Your task to perform on an android device: turn on improve location accuracy Image 0: 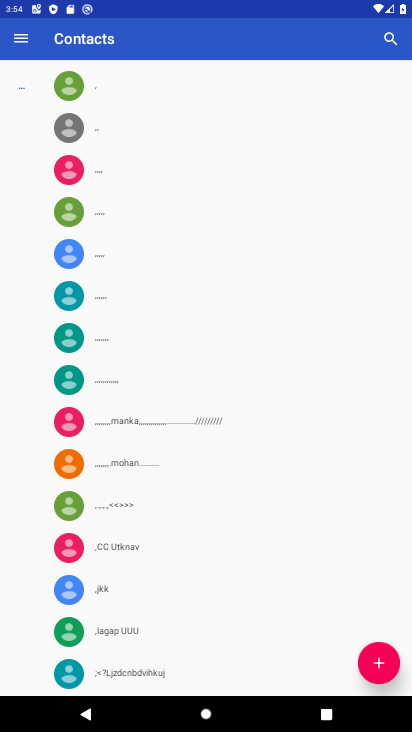
Step 0: press home button
Your task to perform on an android device: turn on improve location accuracy Image 1: 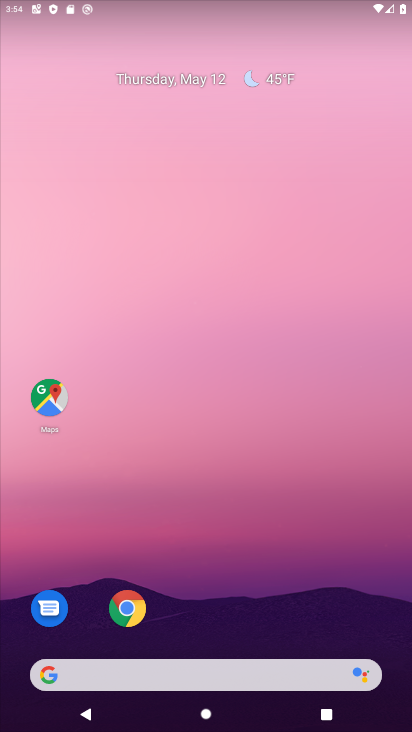
Step 1: drag from (239, 625) to (348, 20)
Your task to perform on an android device: turn on improve location accuracy Image 2: 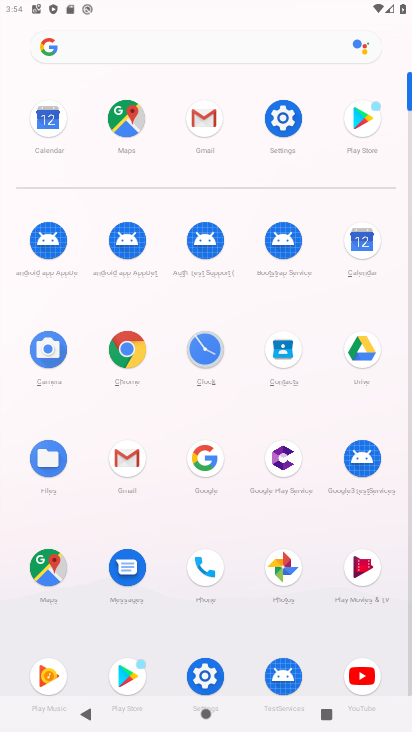
Step 2: click (280, 127)
Your task to perform on an android device: turn on improve location accuracy Image 3: 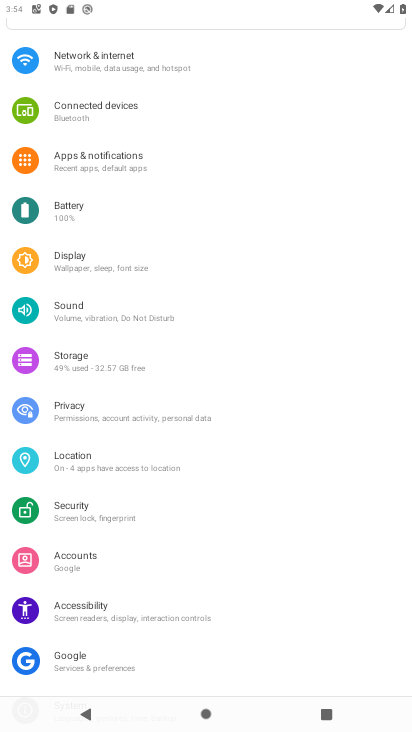
Step 3: click (136, 459)
Your task to perform on an android device: turn on improve location accuracy Image 4: 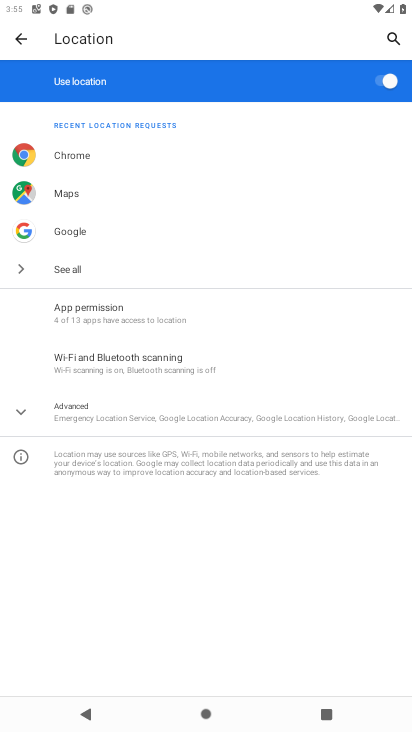
Step 4: click (120, 267)
Your task to perform on an android device: turn on improve location accuracy Image 5: 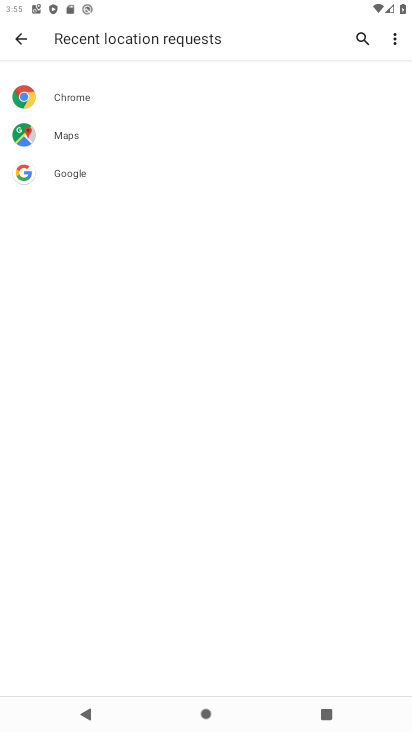
Step 5: click (19, 26)
Your task to perform on an android device: turn on improve location accuracy Image 6: 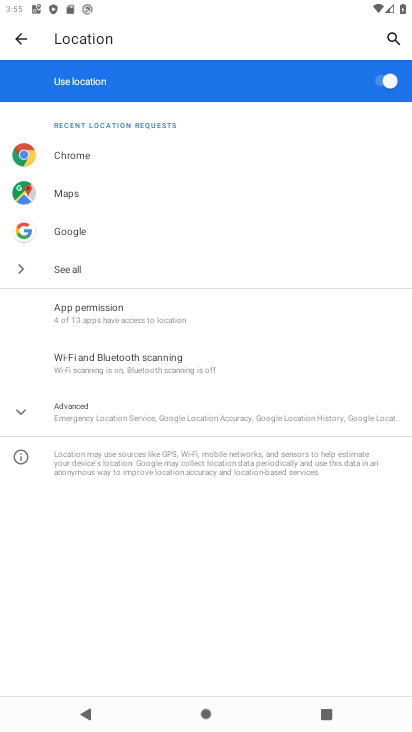
Step 6: click (177, 413)
Your task to perform on an android device: turn on improve location accuracy Image 7: 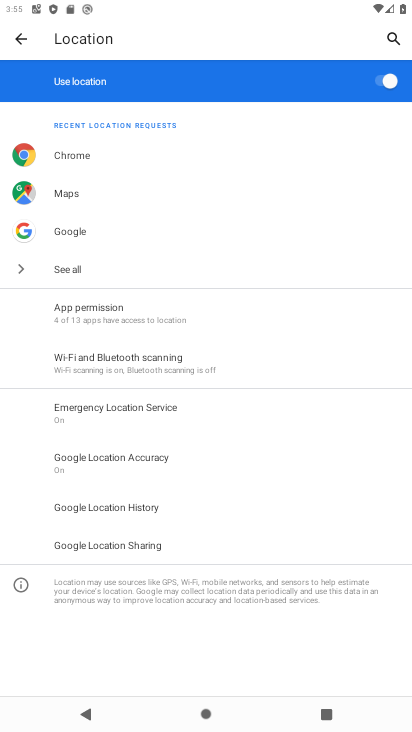
Step 7: click (143, 460)
Your task to perform on an android device: turn on improve location accuracy Image 8: 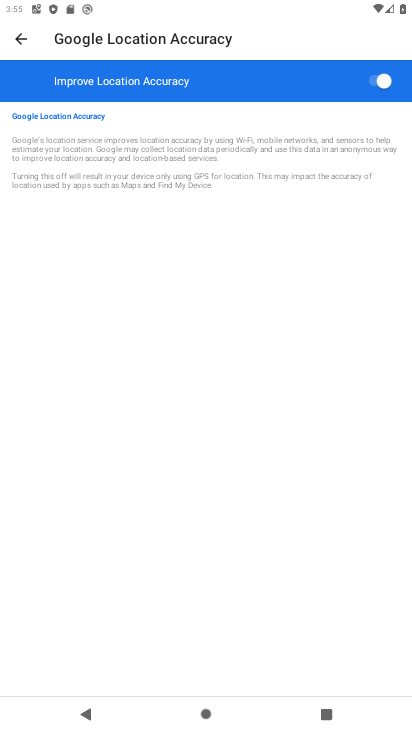
Step 8: task complete